Your task to perform on an android device: change the clock display to digital Image 0: 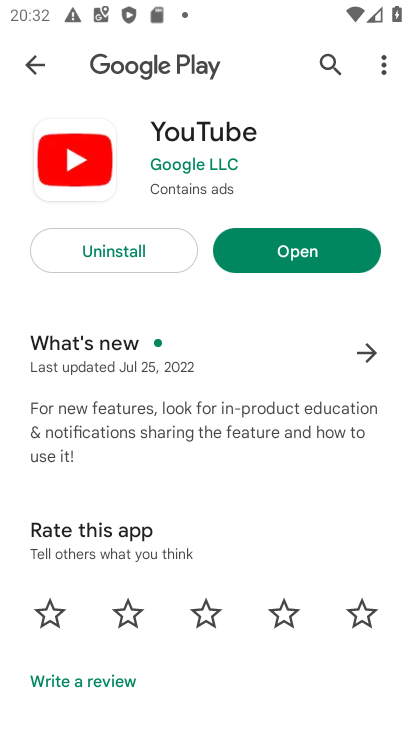
Step 0: press home button
Your task to perform on an android device: change the clock display to digital Image 1: 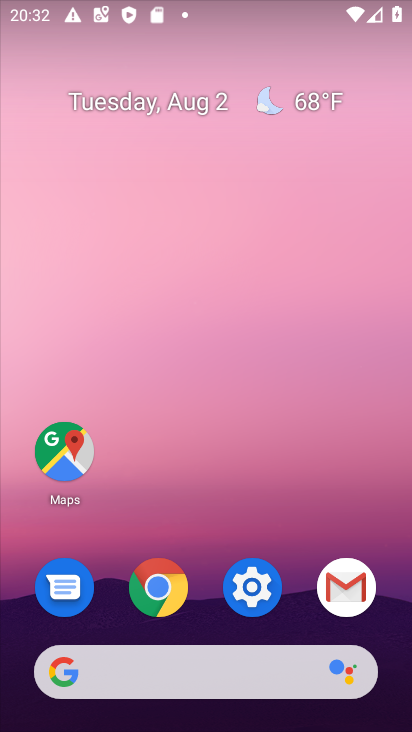
Step 1: drag from (222, 429) to (239, 218)
Your task to perform on an android device: change the clock display to digital Image 2: 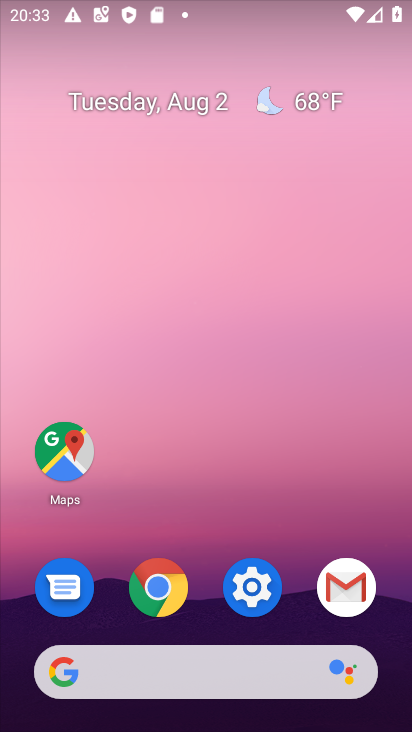
Step 2: drag from (247, 681) to (319, 170)
Your task to perform on an android device: change the clock display to digital Image 3: 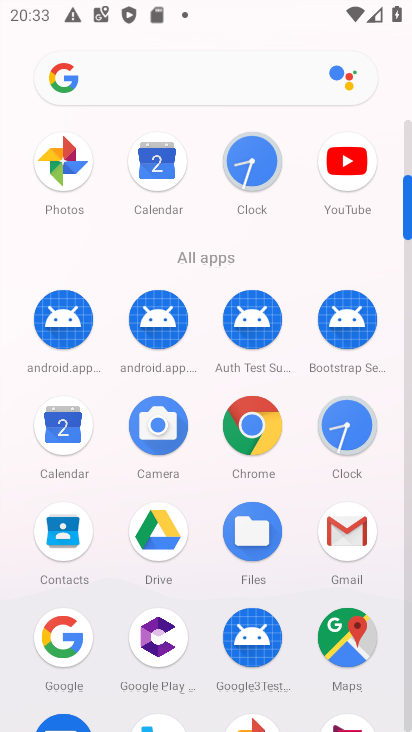
Step 3: click (327, 431)
Your task to perform on an android device: change the clock display to digital Image 4: 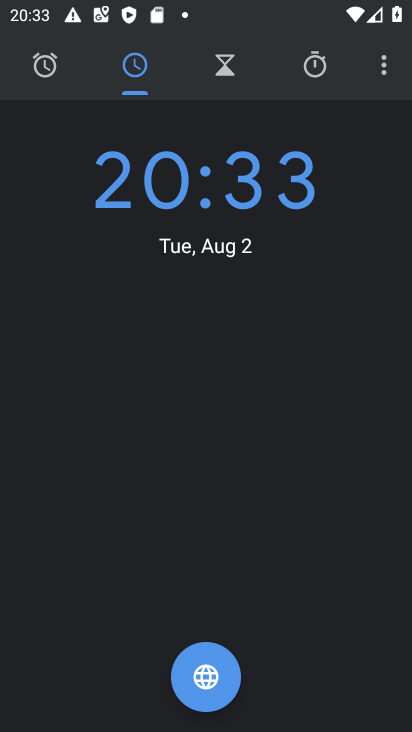
Step 4: click (393, 64)
Your task to perform on an android device: change the clock display to digital Image 5: 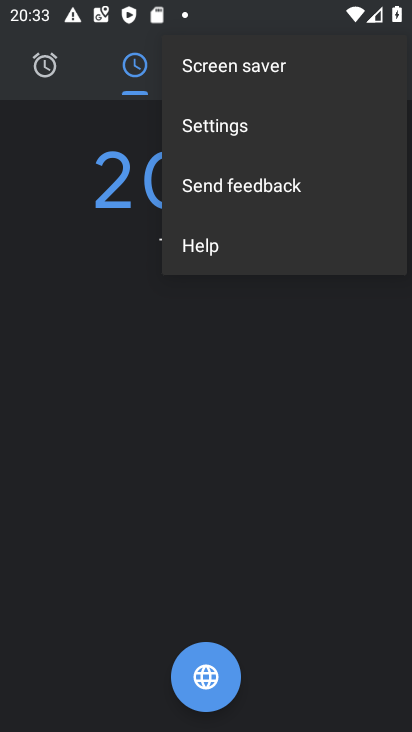
Step 5: click (266, 133)
Your task to perform on an android device: change the clock display to digital Image 6: 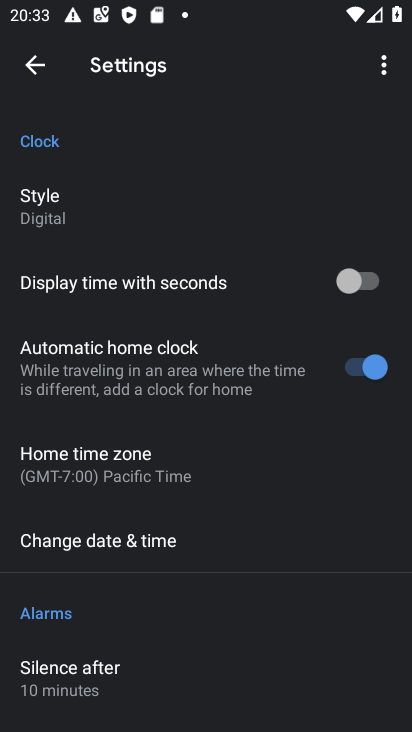
Step 6: click (94, 199)
Your task to perform on an android device: change the clock display to digital Image 7: 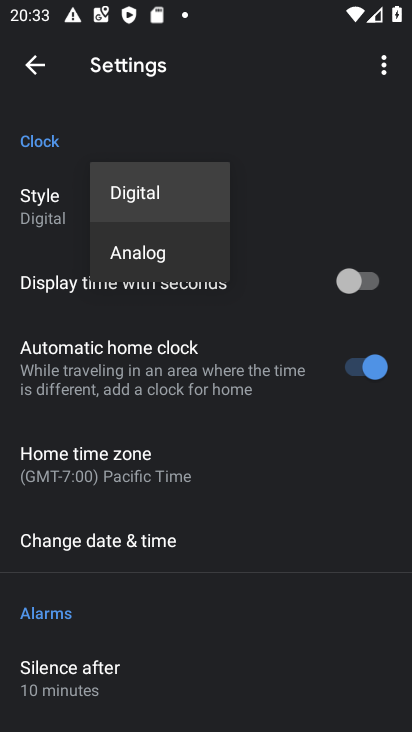
Step 7: click (121, 253)
Your task to perform on an android device: change the clock display to digital Image 8: 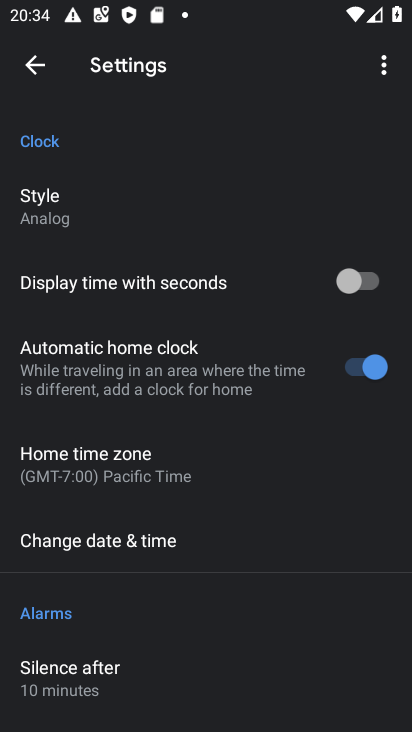
Step 8: task complete